Your task to perform on an android device: install app "Facebook Lite" Image 0: 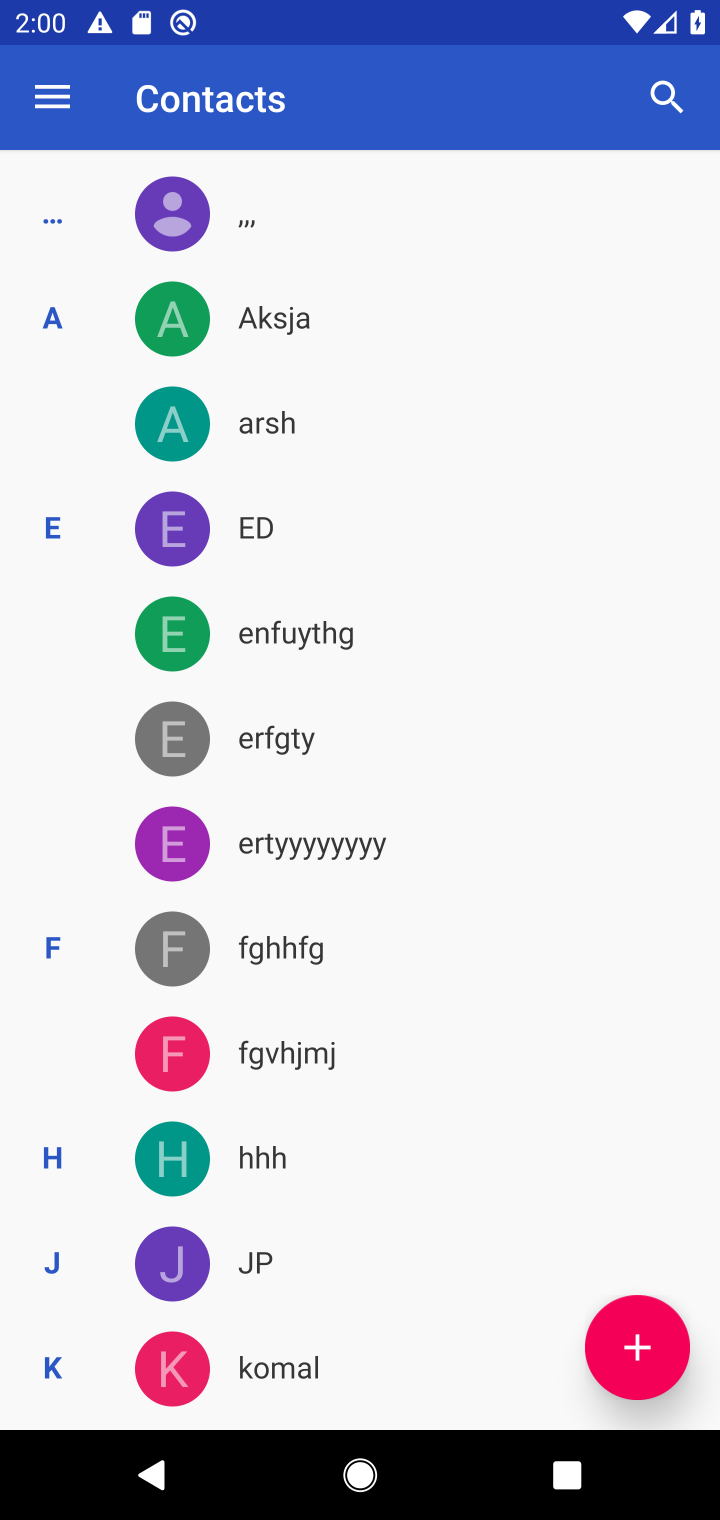
Step 0: press home button
Your task to perform on an android device: install app "Facebook Lite" Image 1: 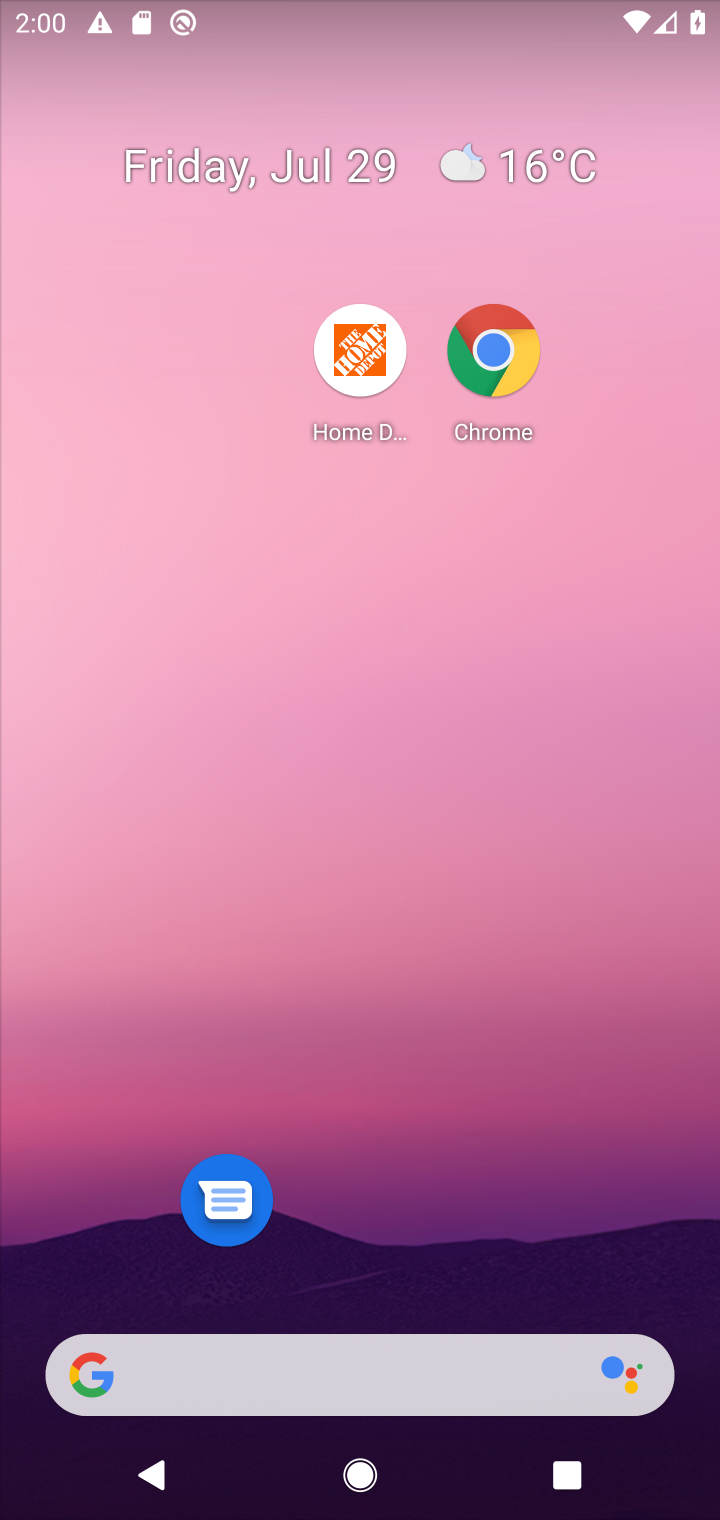
Step 1: drag from (513, 569) to (454, 47)
Your task to perform on an android device: install app "Facebook Lite" Image 2: 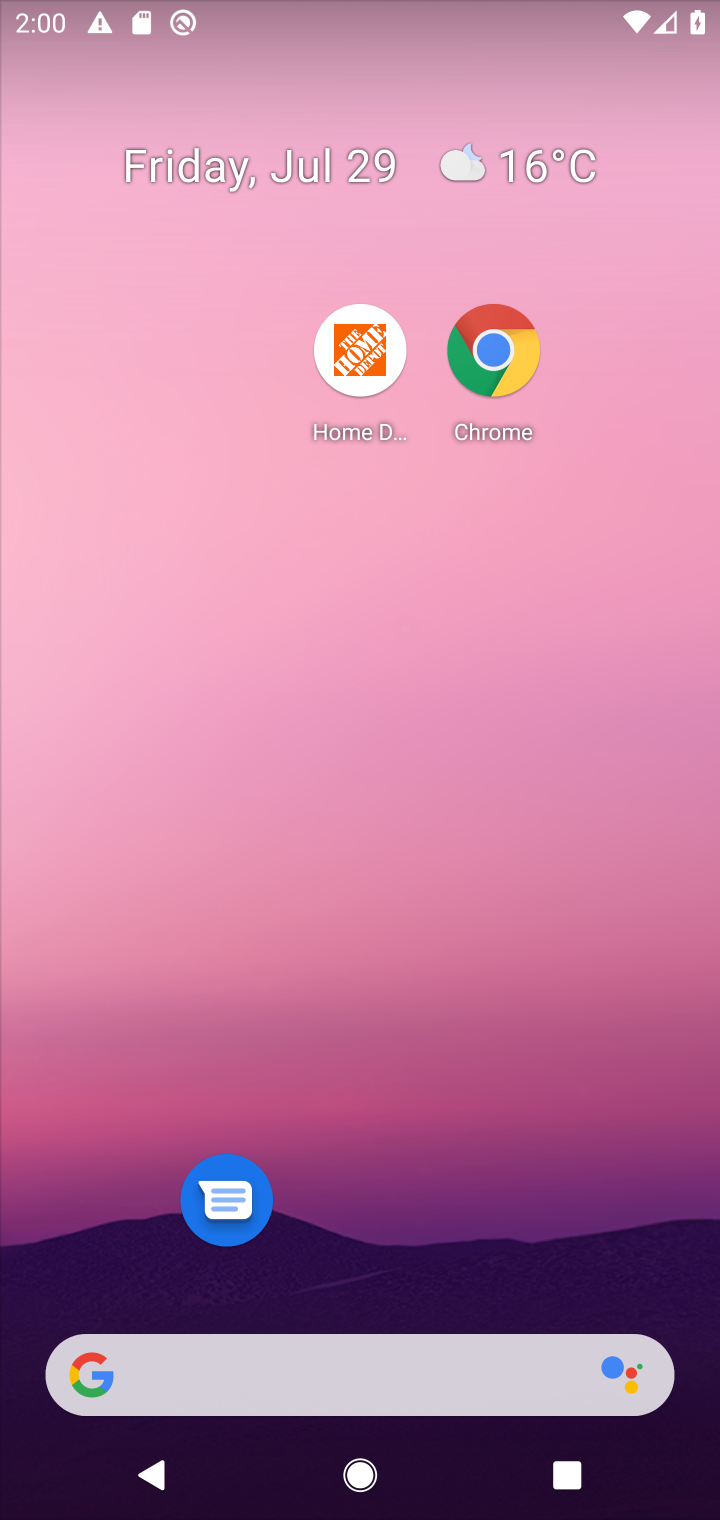
Step 2: drag from (492, 936) to (551, 186)
Your task to perform on an android device: install app "Facebook Lite" Image 3: 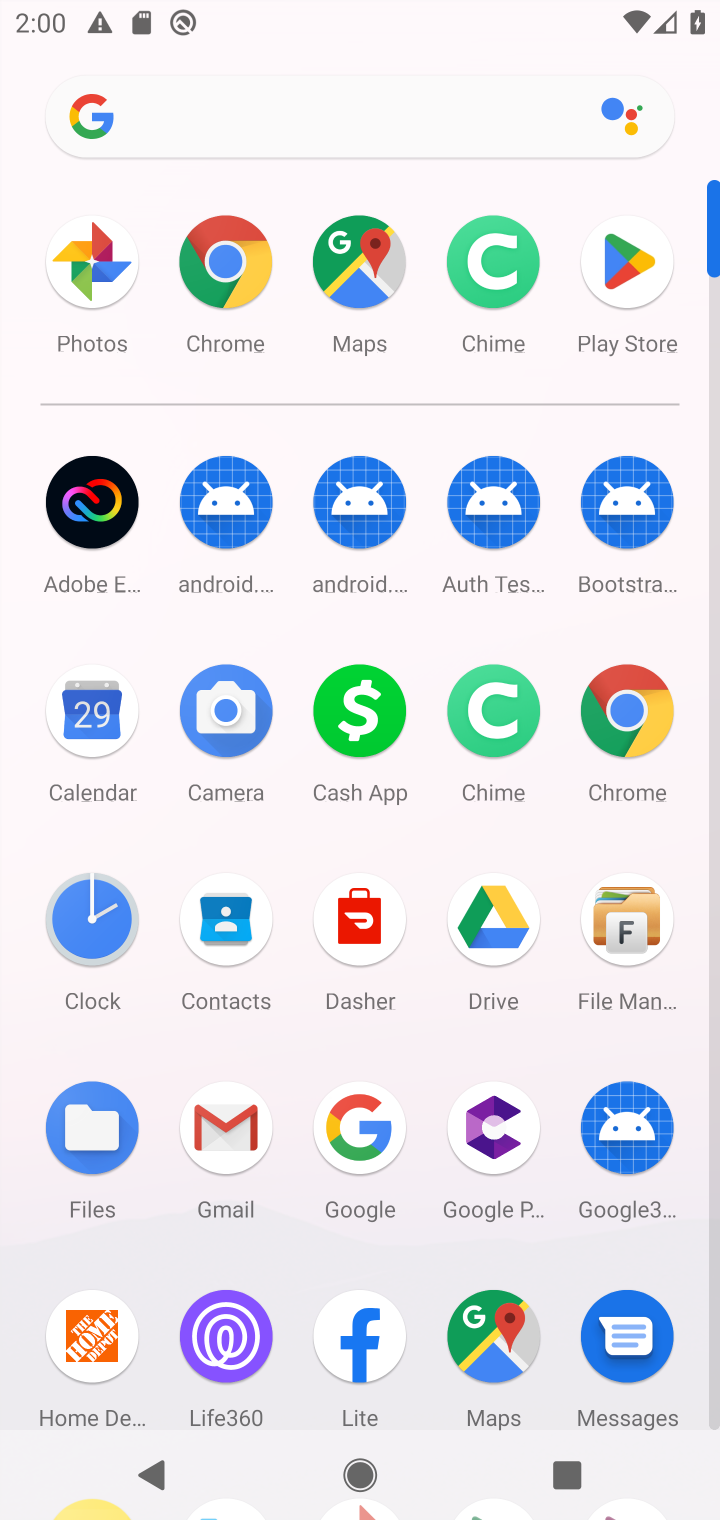
Step 3: click (631, 293)
Your task to perform on an android device: install app "Facebook Lite" Image 4: 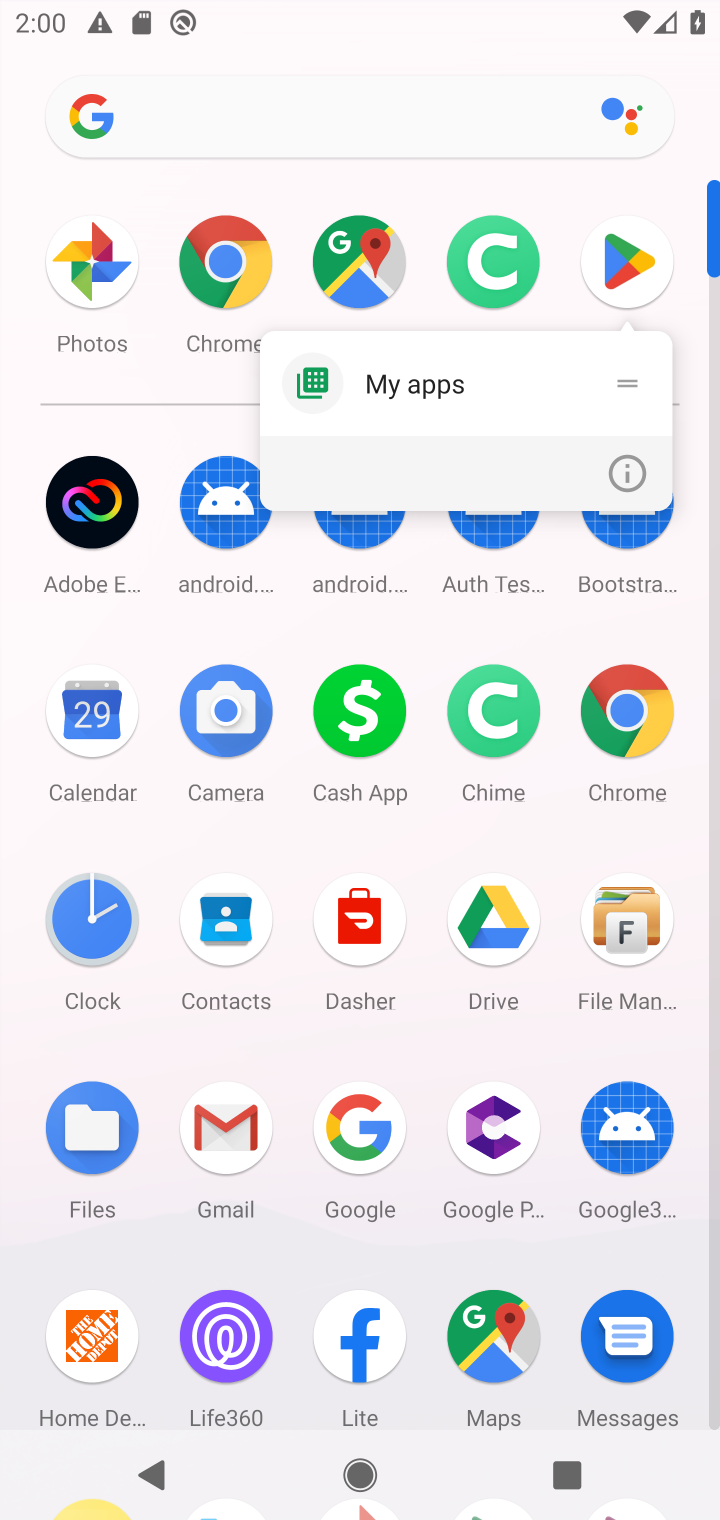
Step 4: click (625, 262)
Your task to perform on an android device: install app "Facebook Lite" Image 5: 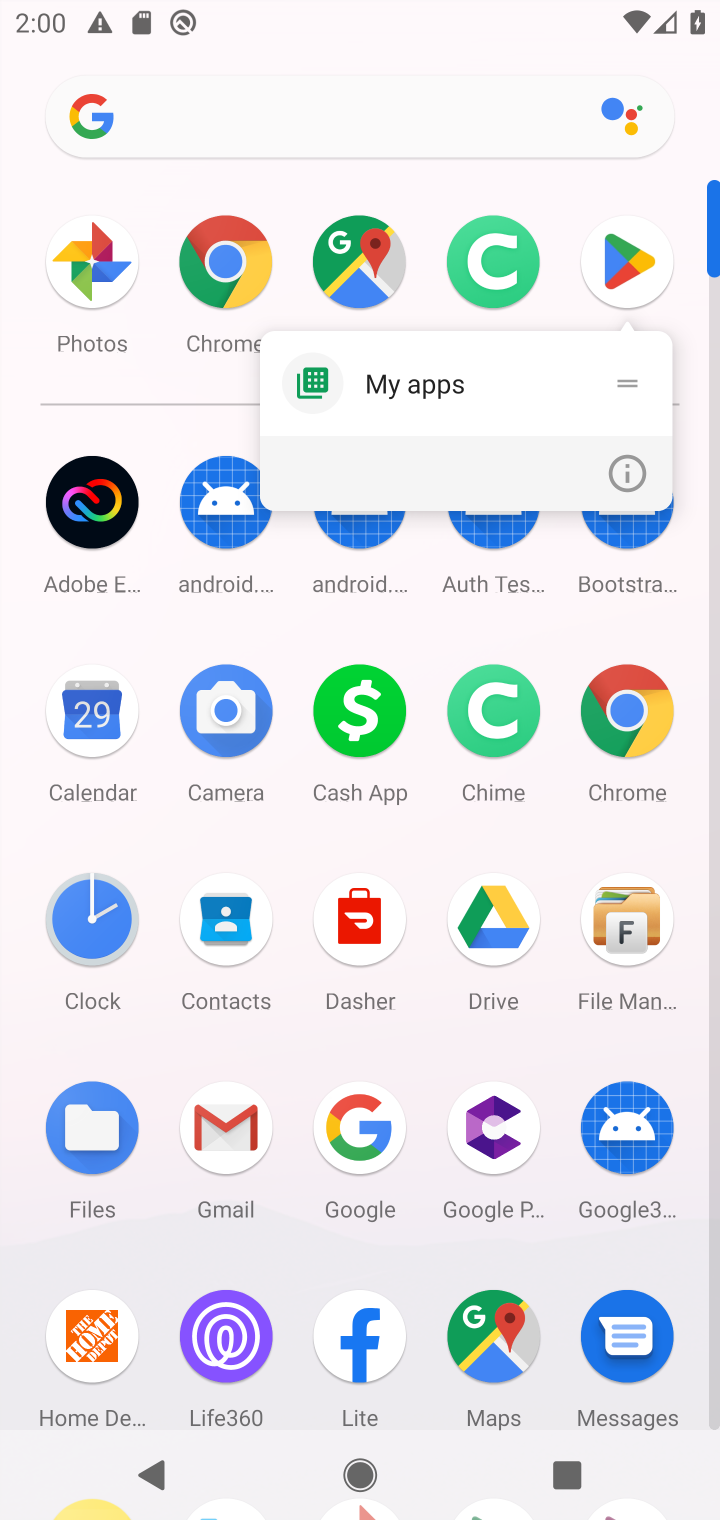
Step 5: click (622, 256)
Your task to perform on an android device: install app "Facebook Lite" Image 6: 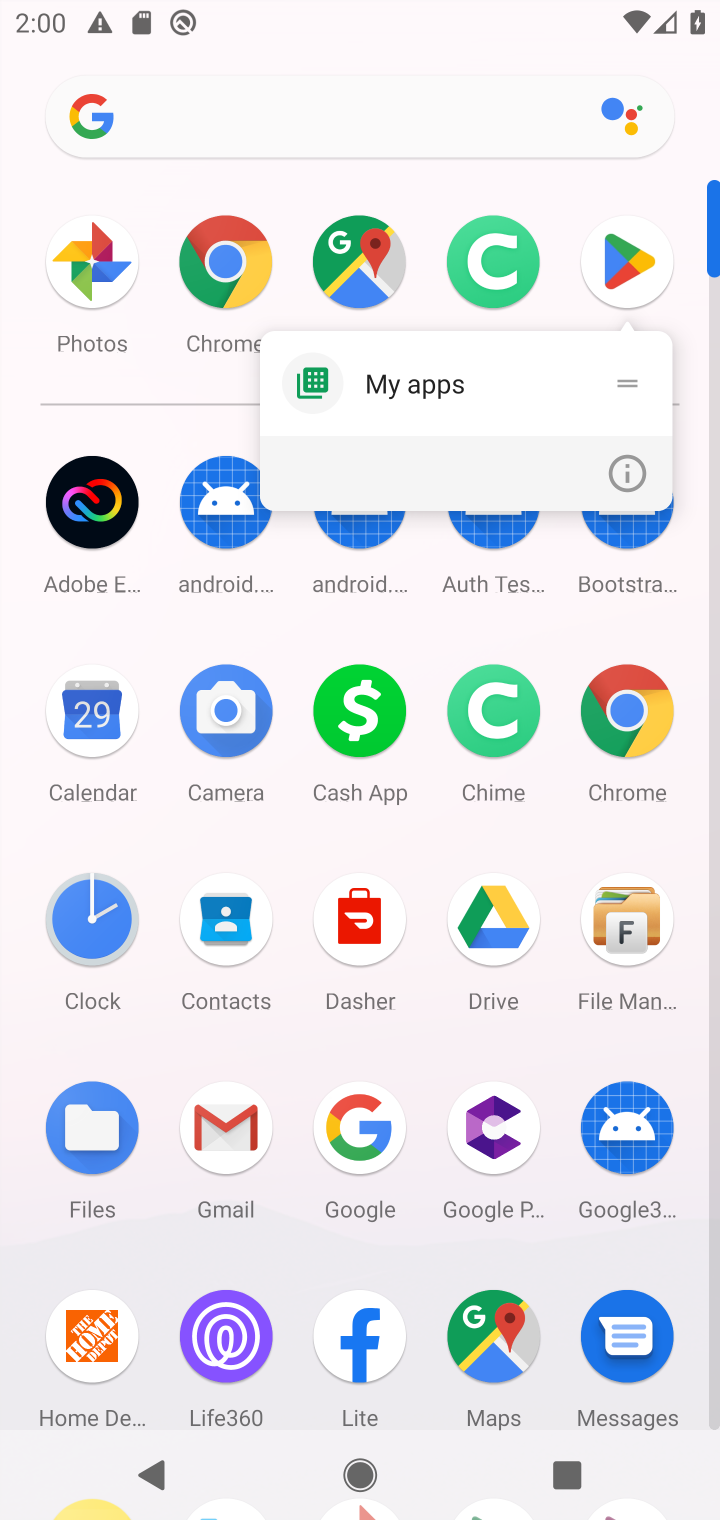
Step 6: click (622, 256)
Your task to perform on an android device: install app "Facebook Lite" Image 7: 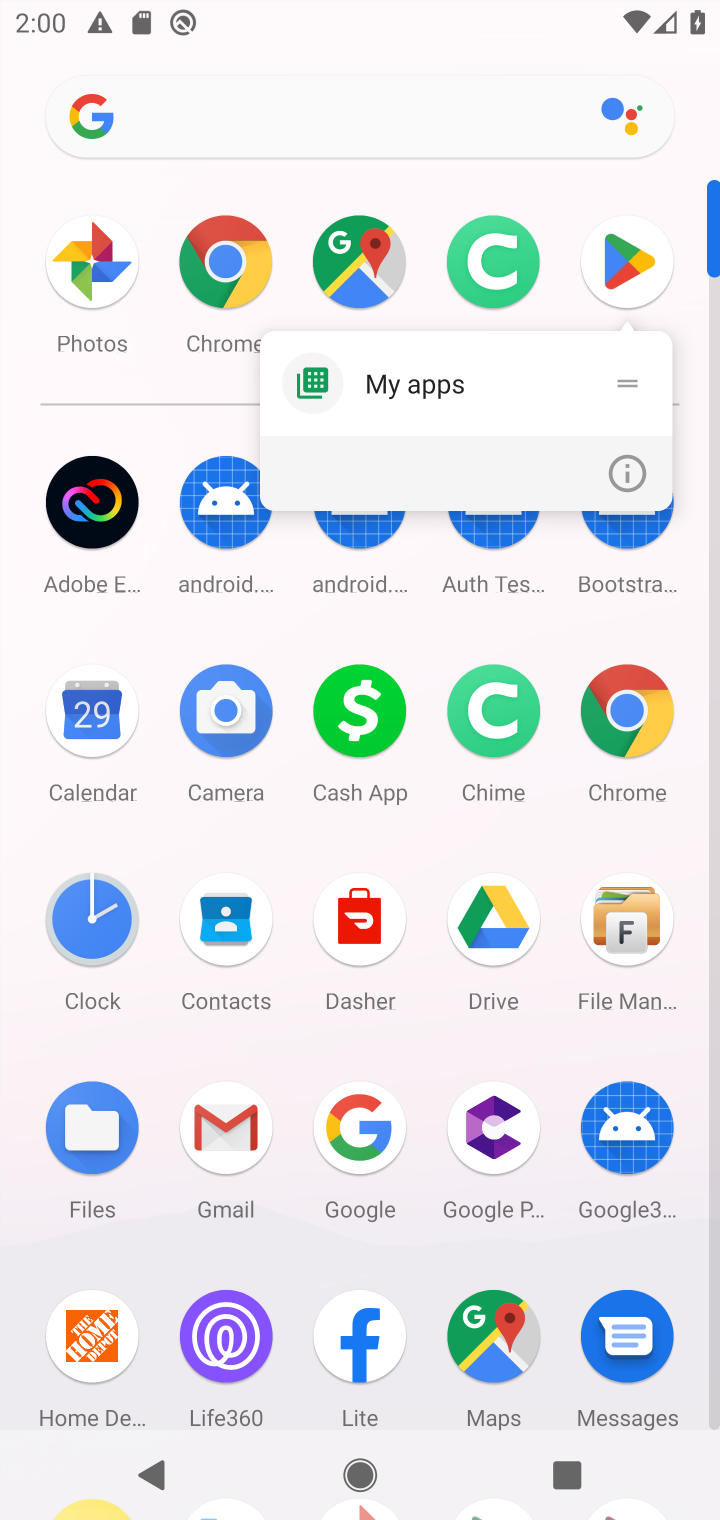
Step 7: click (420, 1270)
Your task to perform on an android device: install app "Facebook Lite" Image 8: 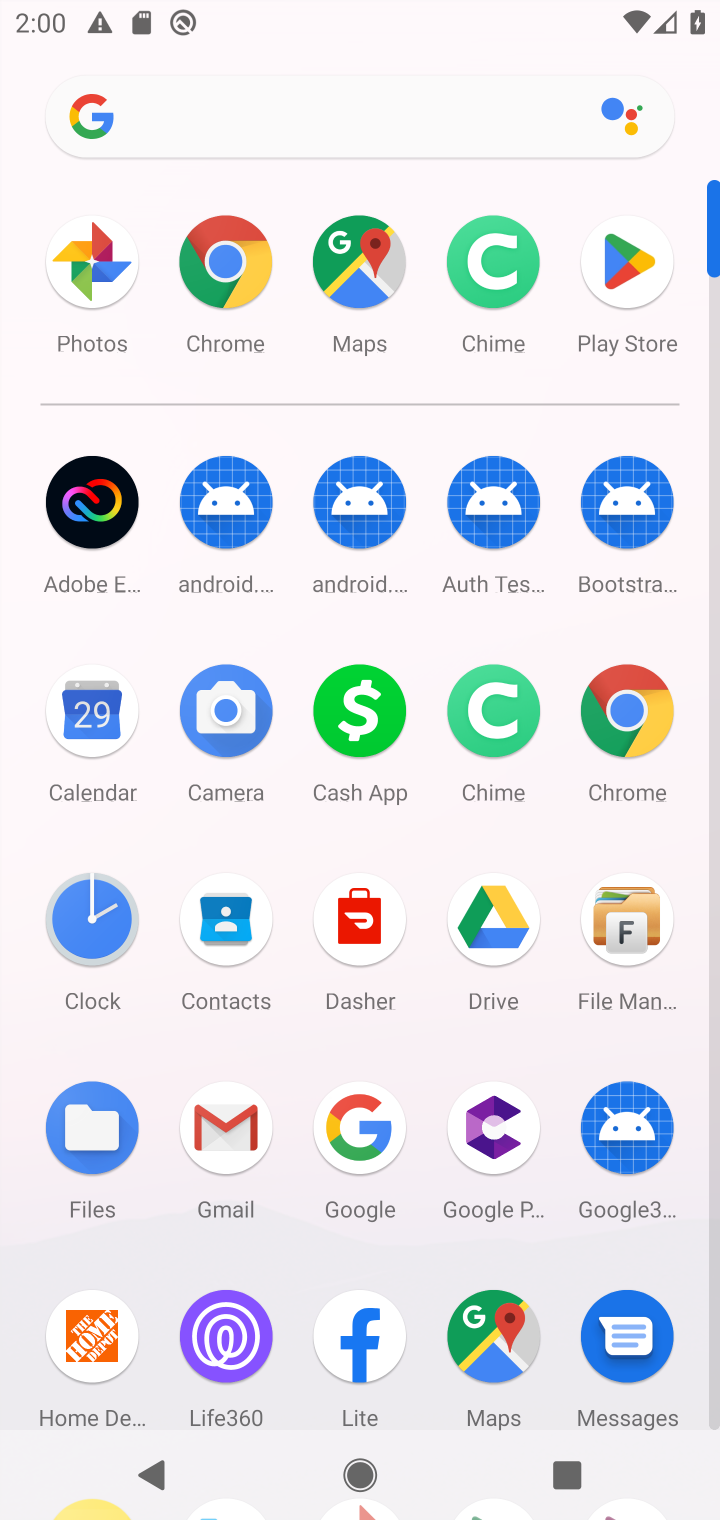
Step 8: drag from (420, 1247) to (514, 435)
Your task to perform on an android device: install app "Facebook Lite" Image 9: 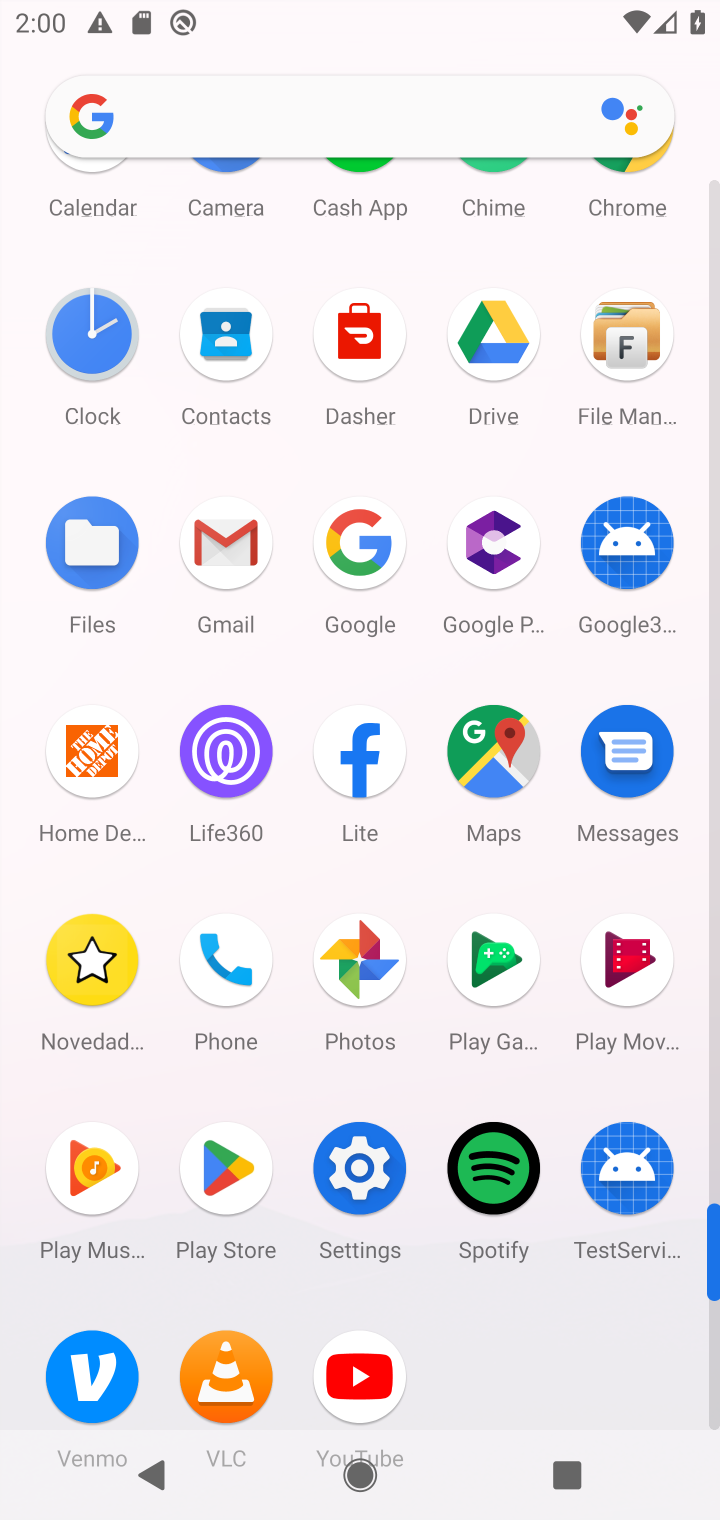
Step 9: click (234, 1179)
Your task to perform on an android device: install app "Facebook Lite" Image 10: 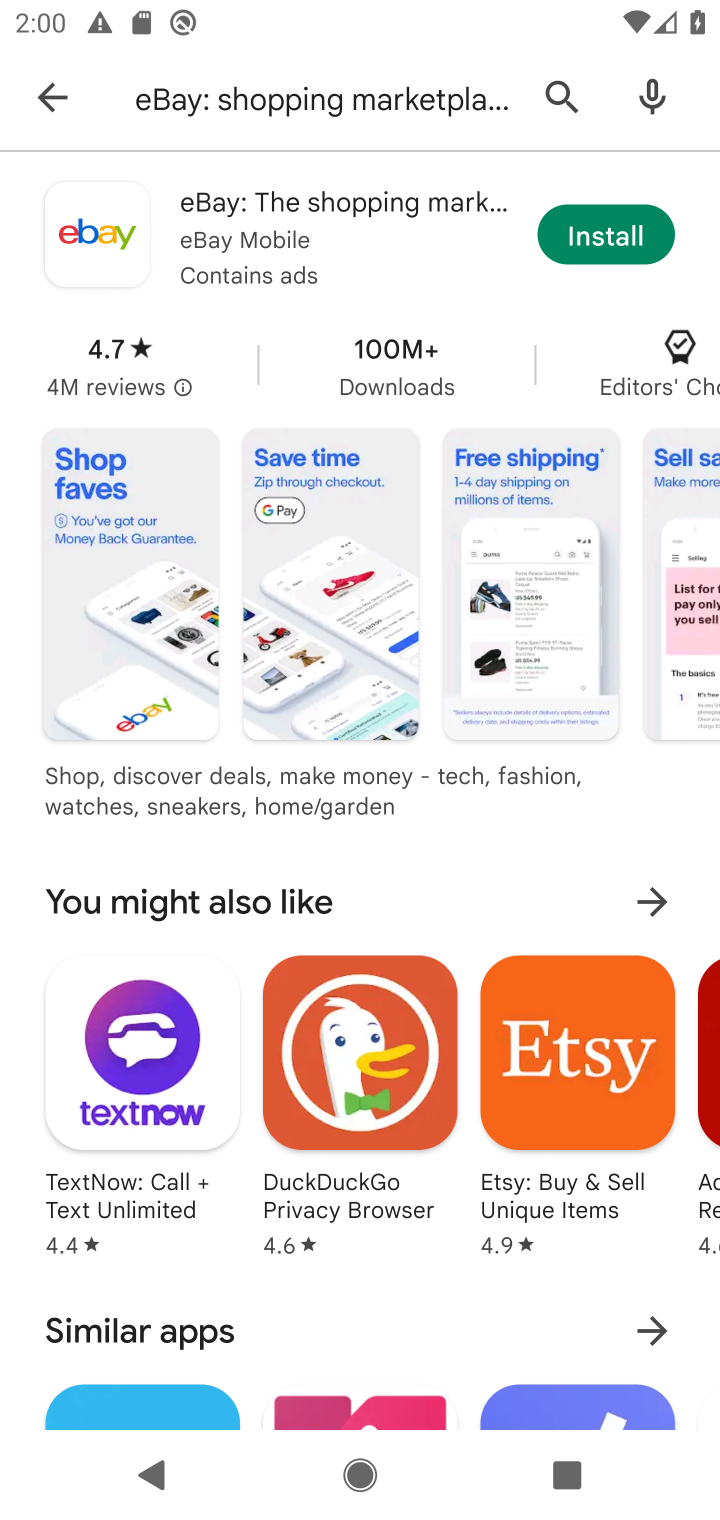
Step 10: click (421, 86)
Your task to perform on an android device: install app "Facebook Lite" Image 11: 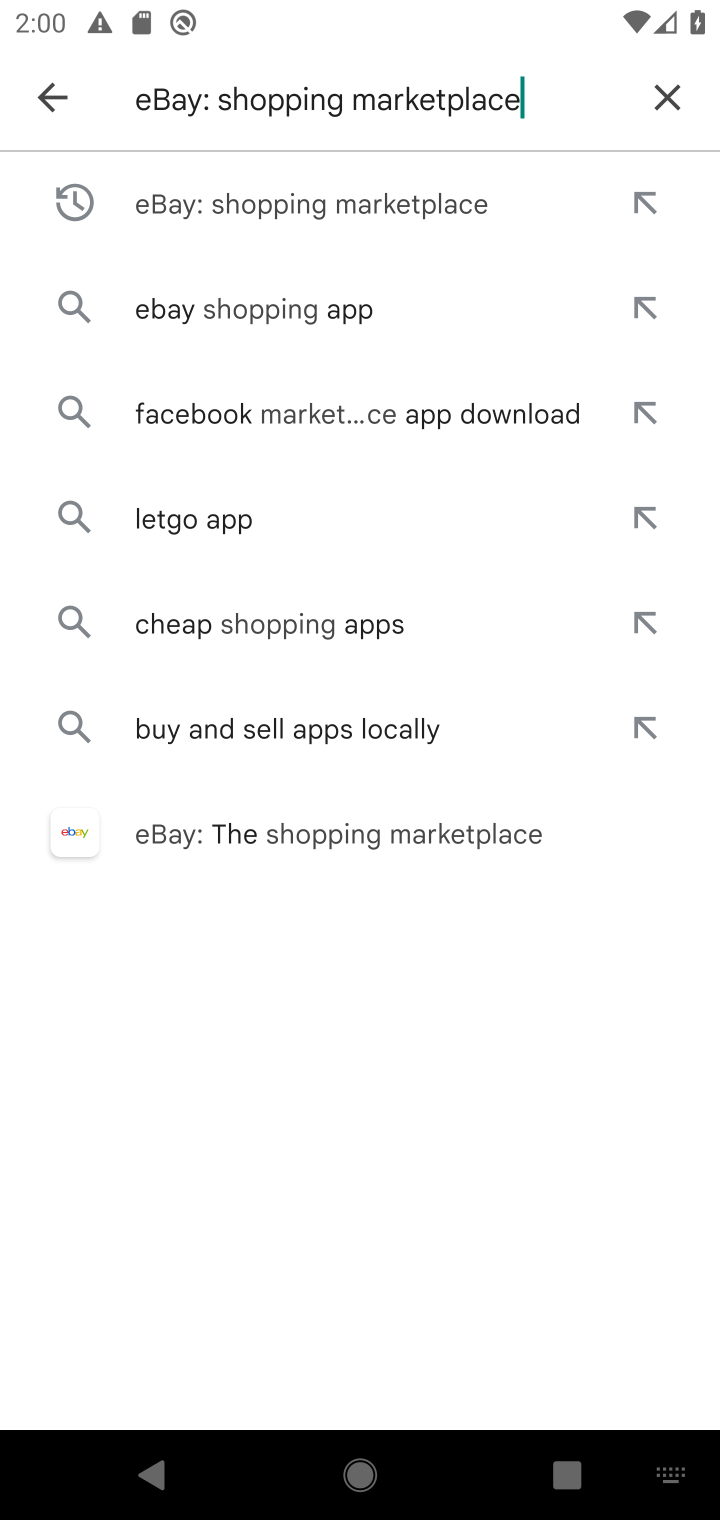
Step 11: click (670, 88)
Your task to perform on an android device: install app "Facebook Lite" Image 12: 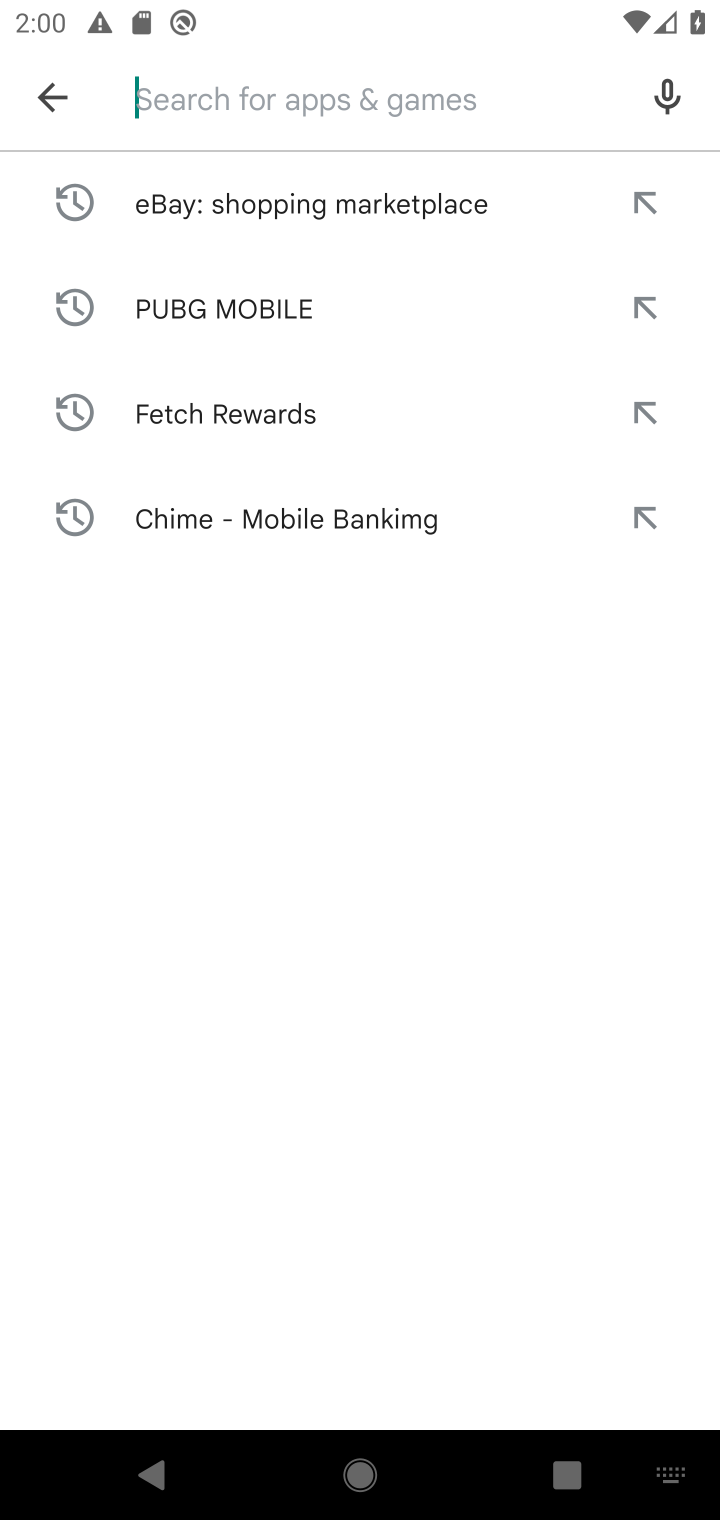
Step 12: type "Facebook Lite"
Your task to perform on an android device: install app "Facebook Lite" Image 13: 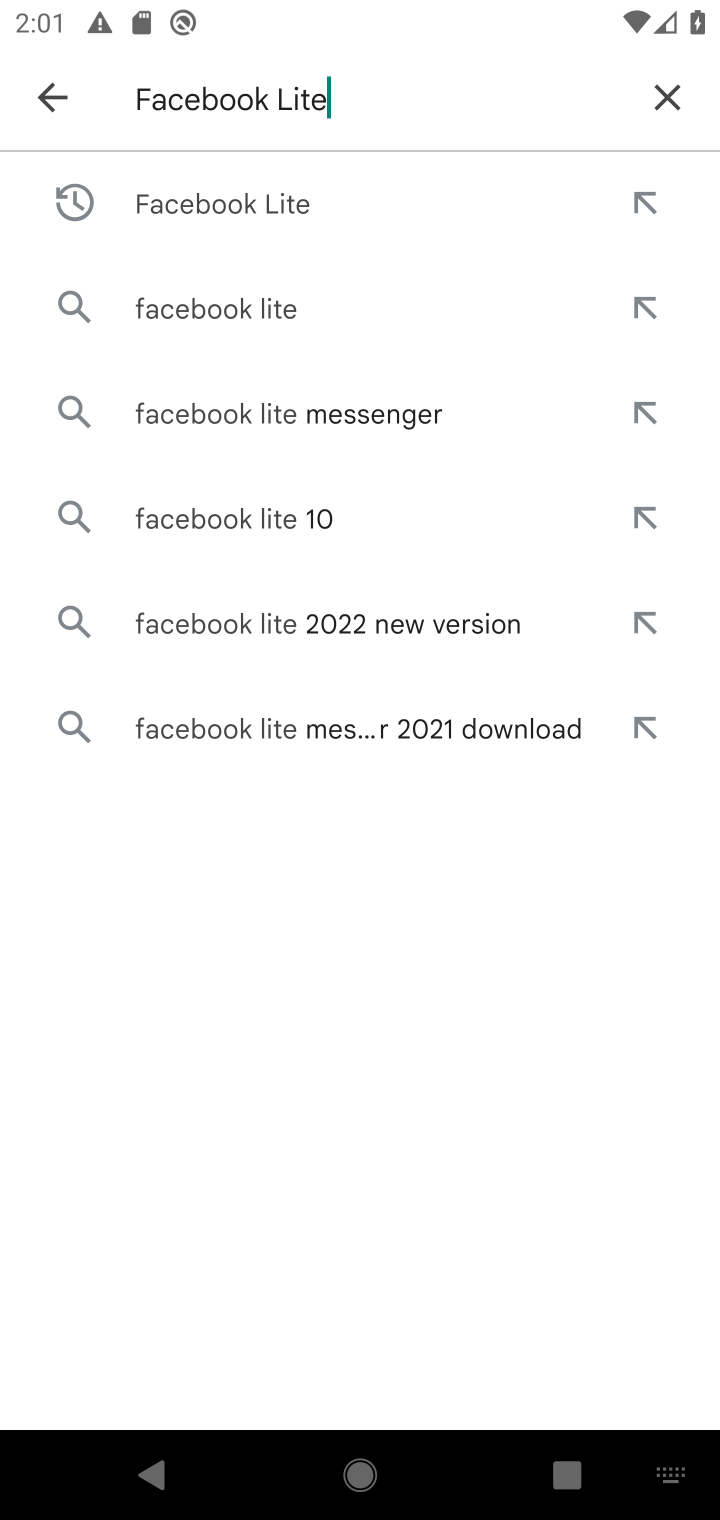
Step 13: press enter
Your task to perform on an android device: install app "Facebook Lite" Image 14: 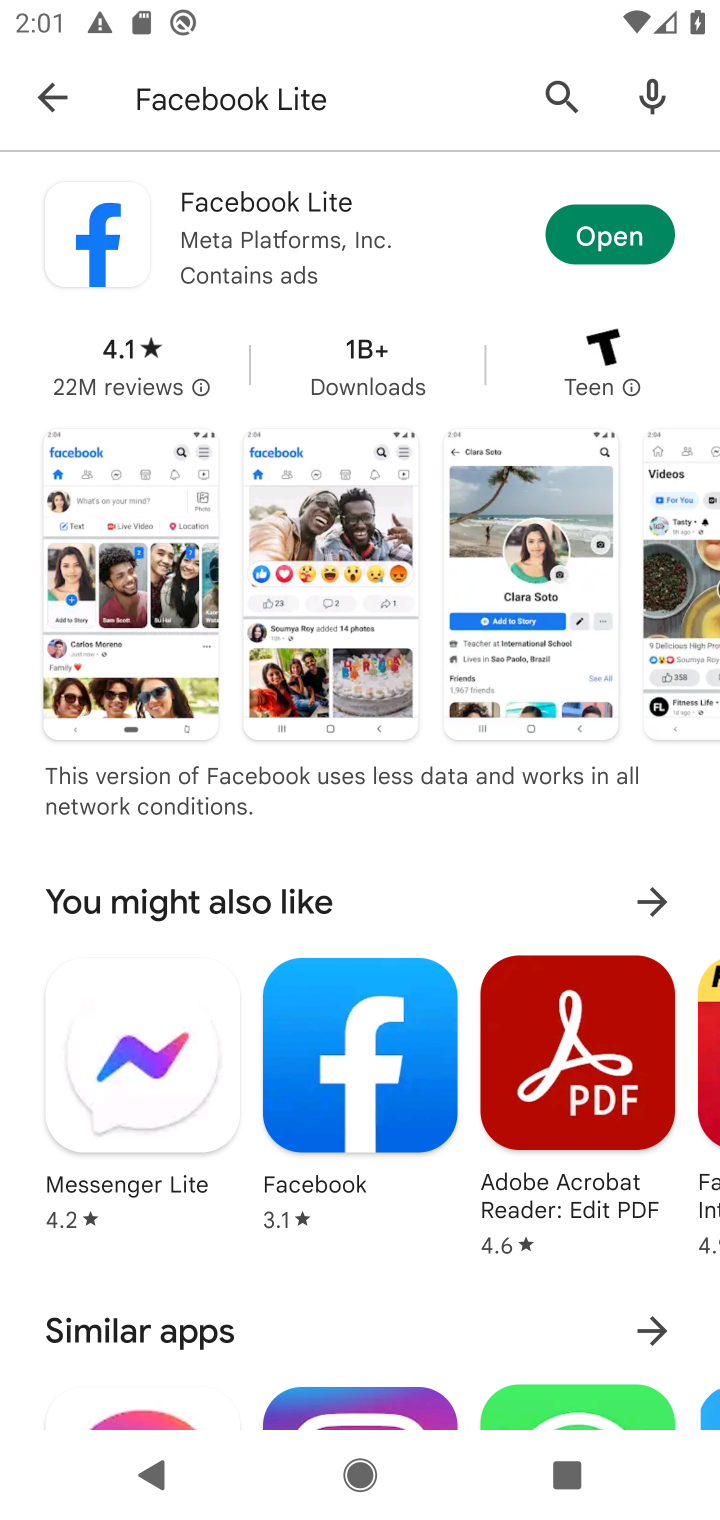
Step 14: click (398, 214)
Your task to perform on an android device: install app "Facebook Lite" Image 15: 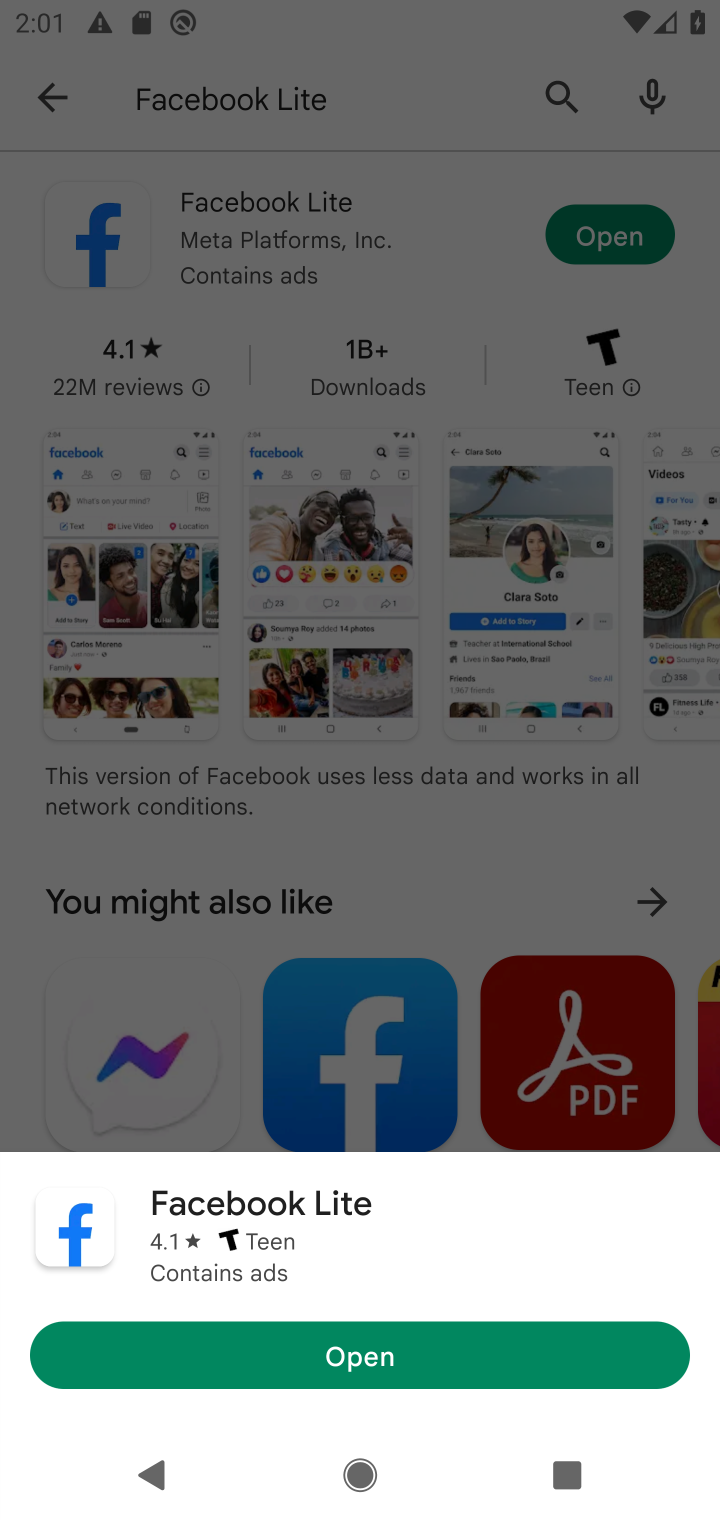
Step 15: task complete